Your task to perform on an android device: Open calendar and show me the second week of next month Image 0: 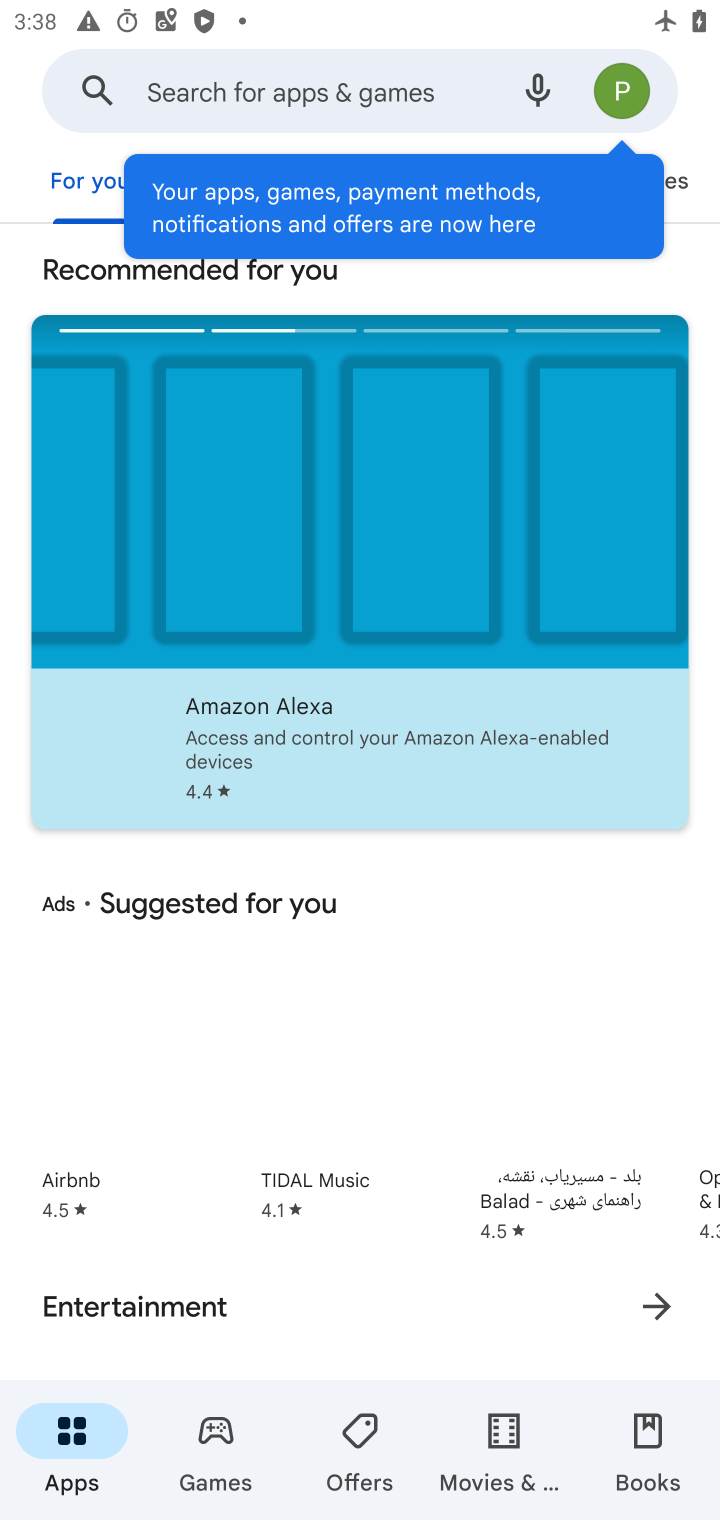
Step 0: press back button
Your task to perform on an android device: Open calendar and show me the second week of next month Image 1: 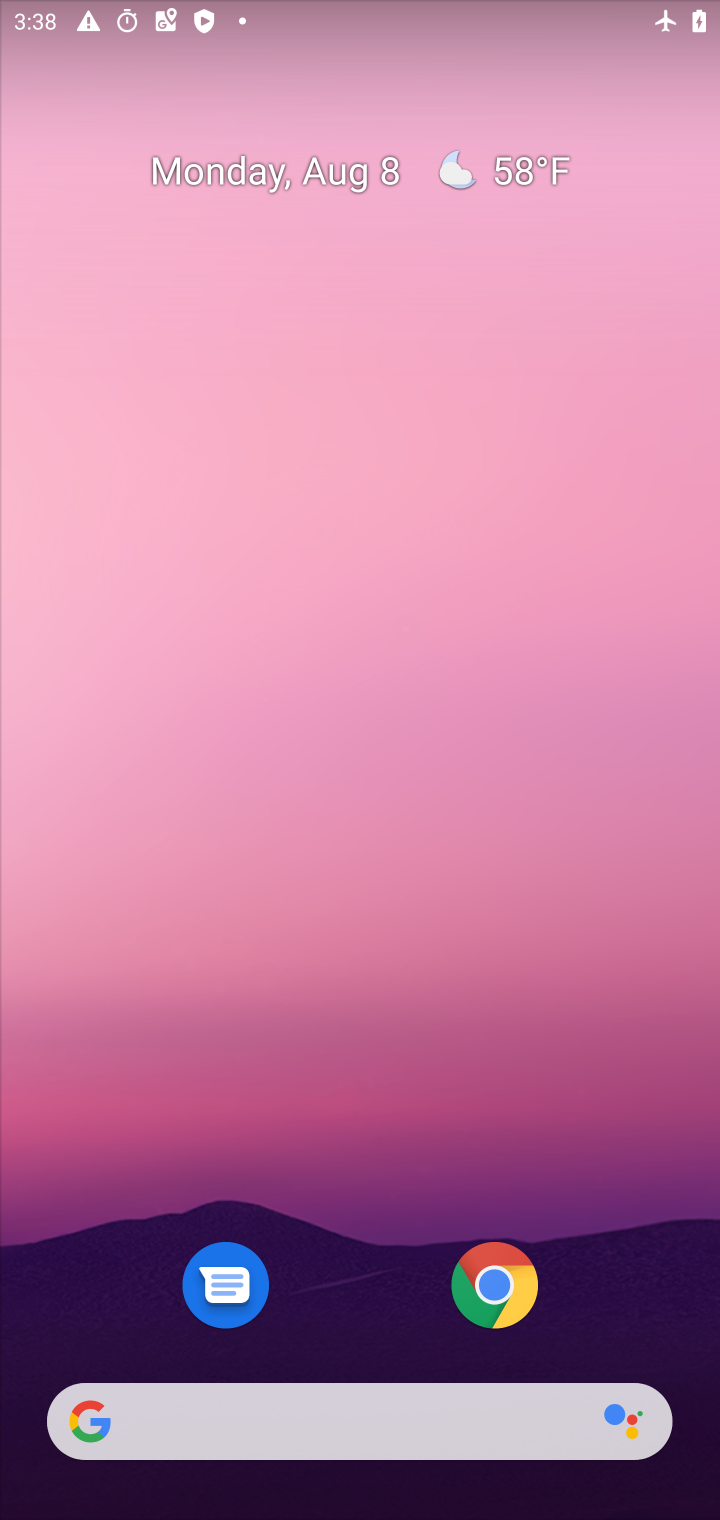
Step 1: drag from (333, 1047) to (480, 57)
Your task to perform on an android device: Open calendar and show me the second week of next month Image 2: 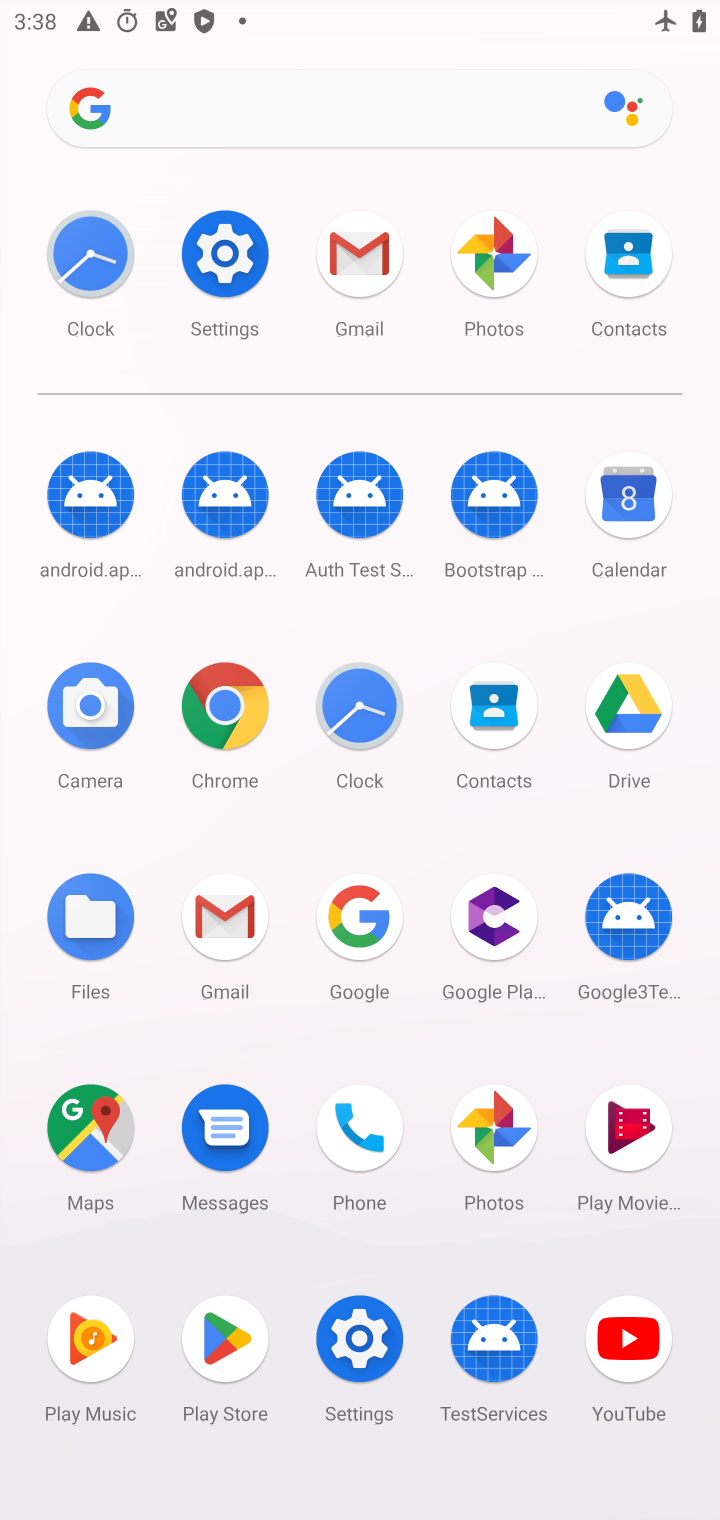
Step 2: click (654, 518)
Your task to perform on an android device: Open calendar and show me the second week of next month Image 3: 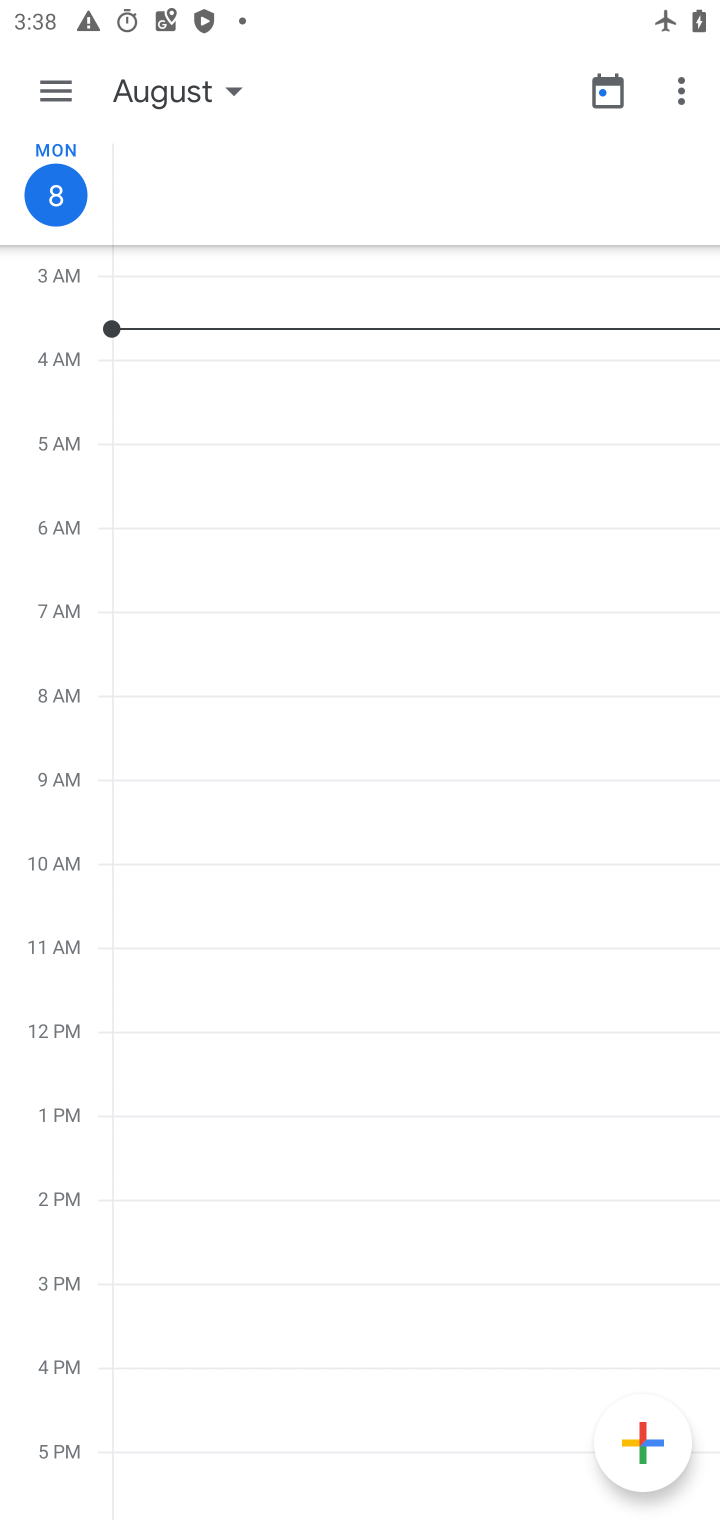
Step 3: click (157, 93)
Your task to perform on an android device: Open calendar and show me the second week of next month Image 4: 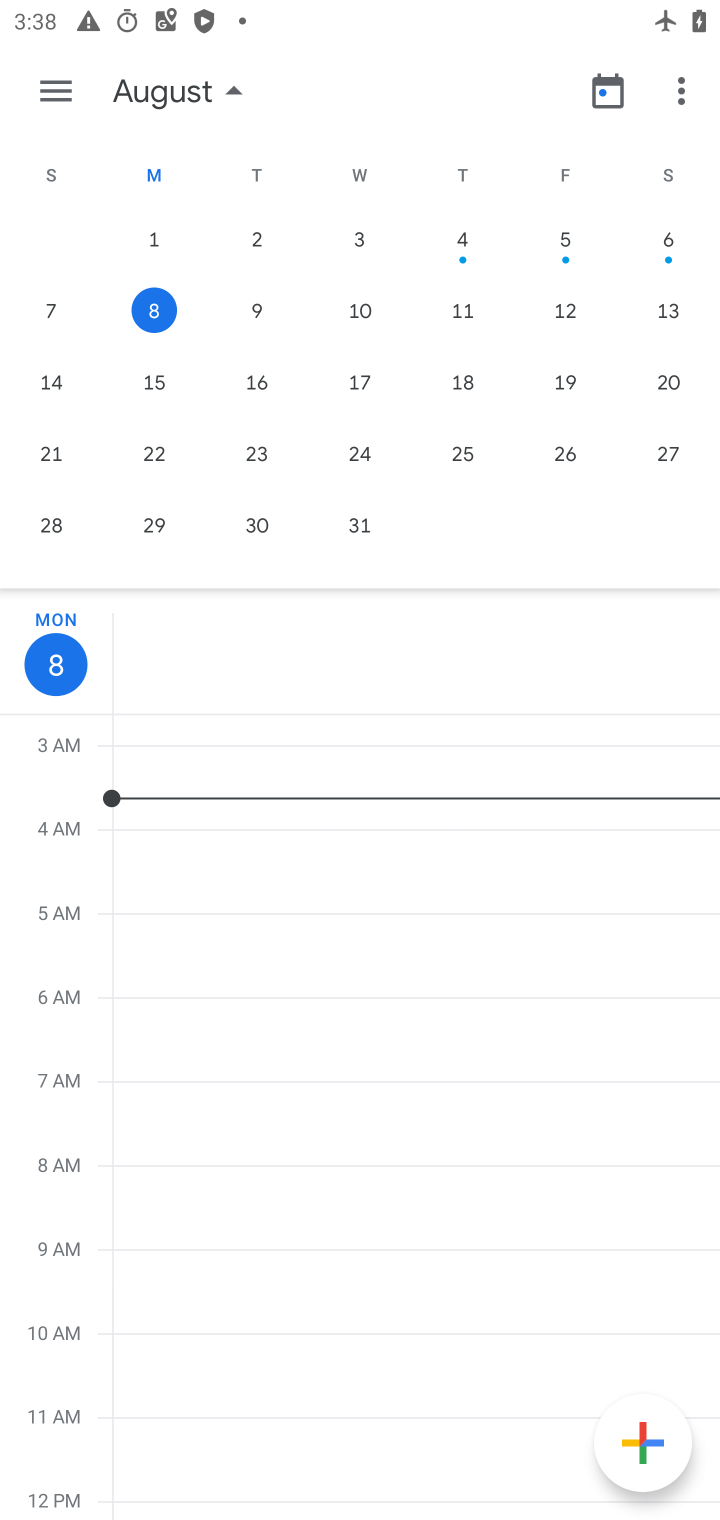
Step 4: drag from (643, 389) to (71, 438)
Your task to perform on an android device: Open calendar and show me the second week of next month Image 5: 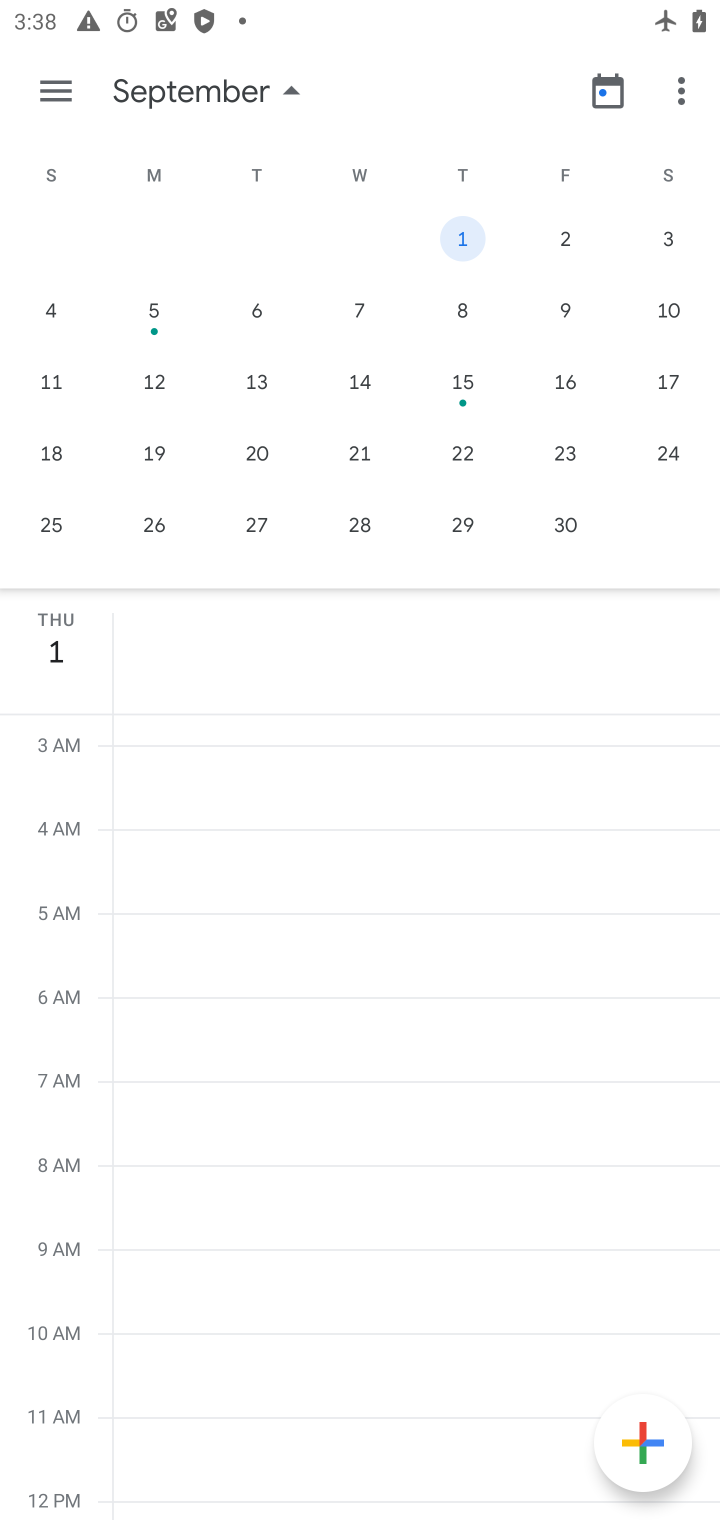
Step 5: click (554, 238)
Your task to perform on an android device: Open calendar and show me the second week of next month Image 6: 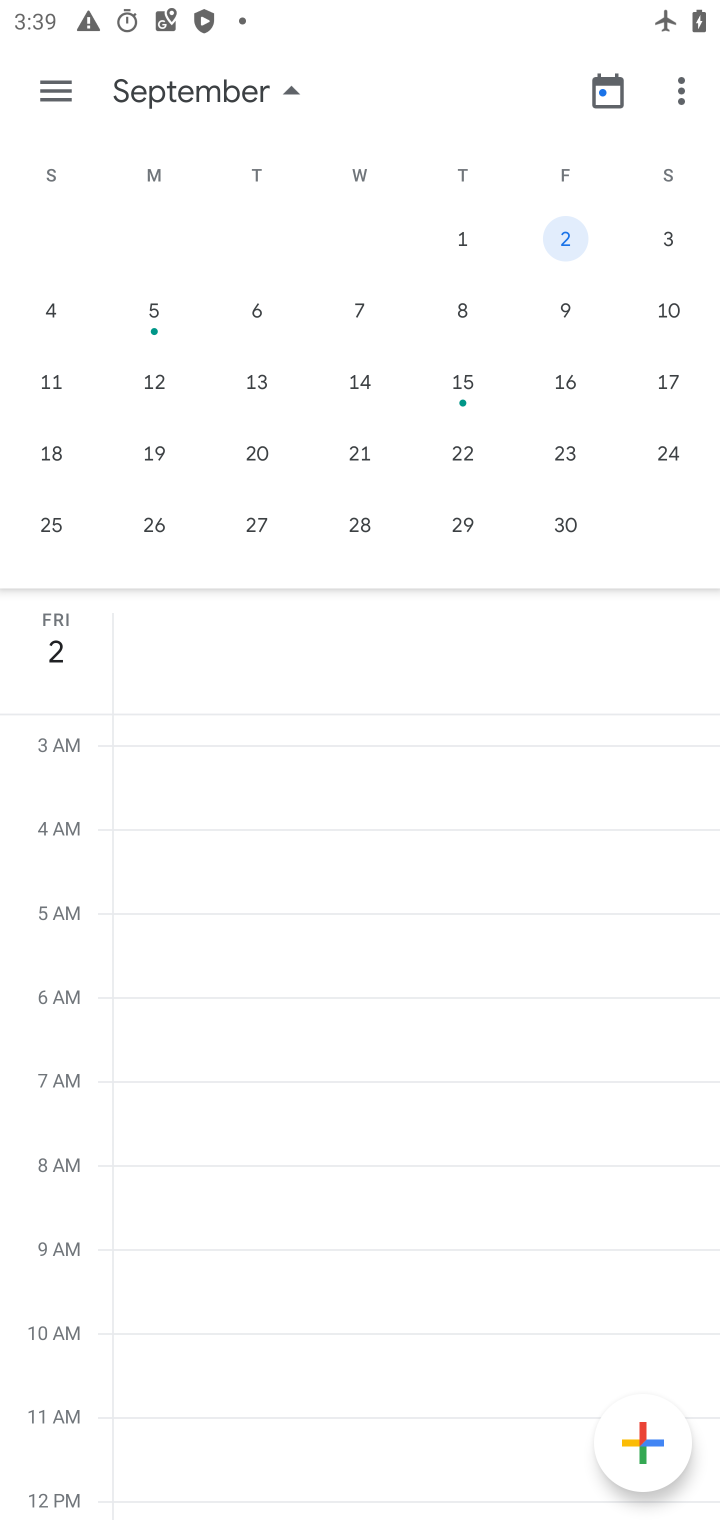
Step 6: task complete